Your task to perform on an android device: toggle priority inbox in the gmail app Image 0: 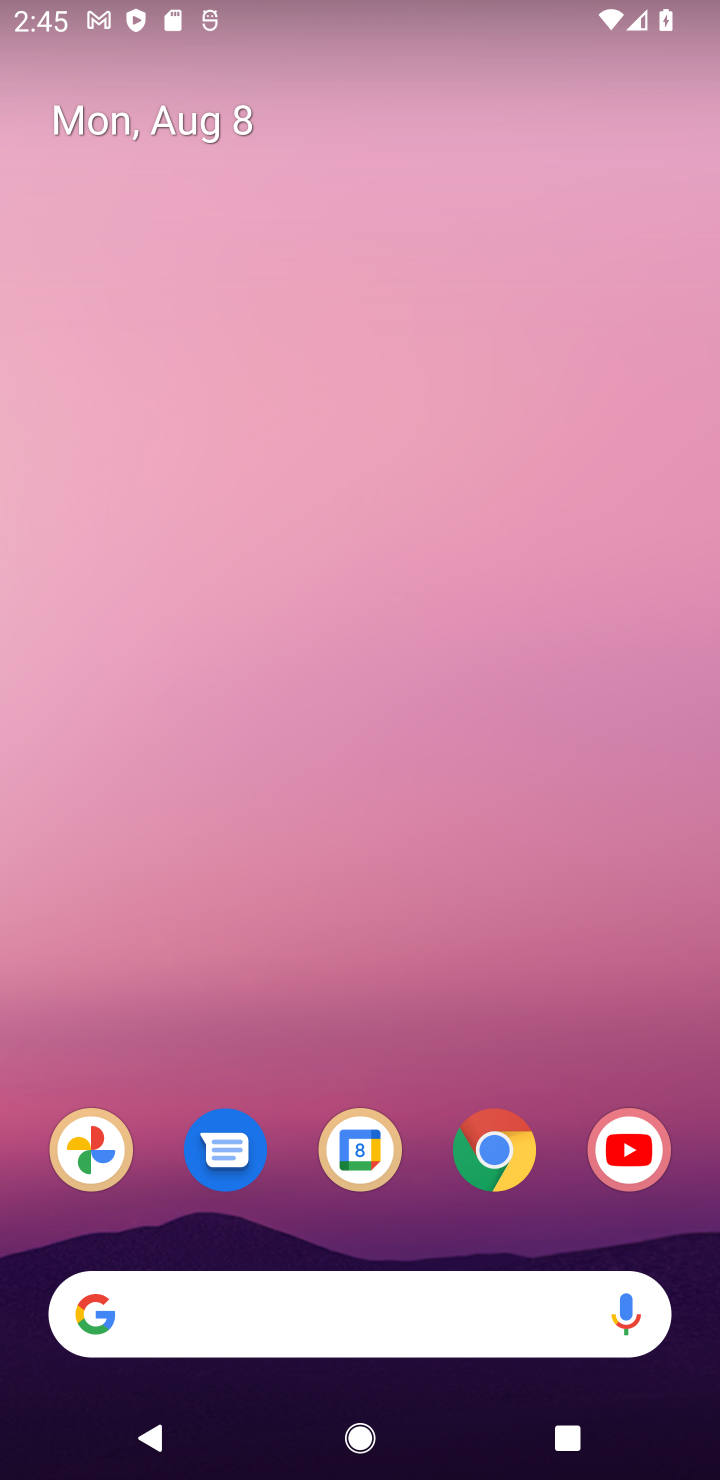
Step 0: drag from (421, 1251) to (458, 327)
Your task to perform on an android device: toggle priority inbox in the gmail app Image 1: 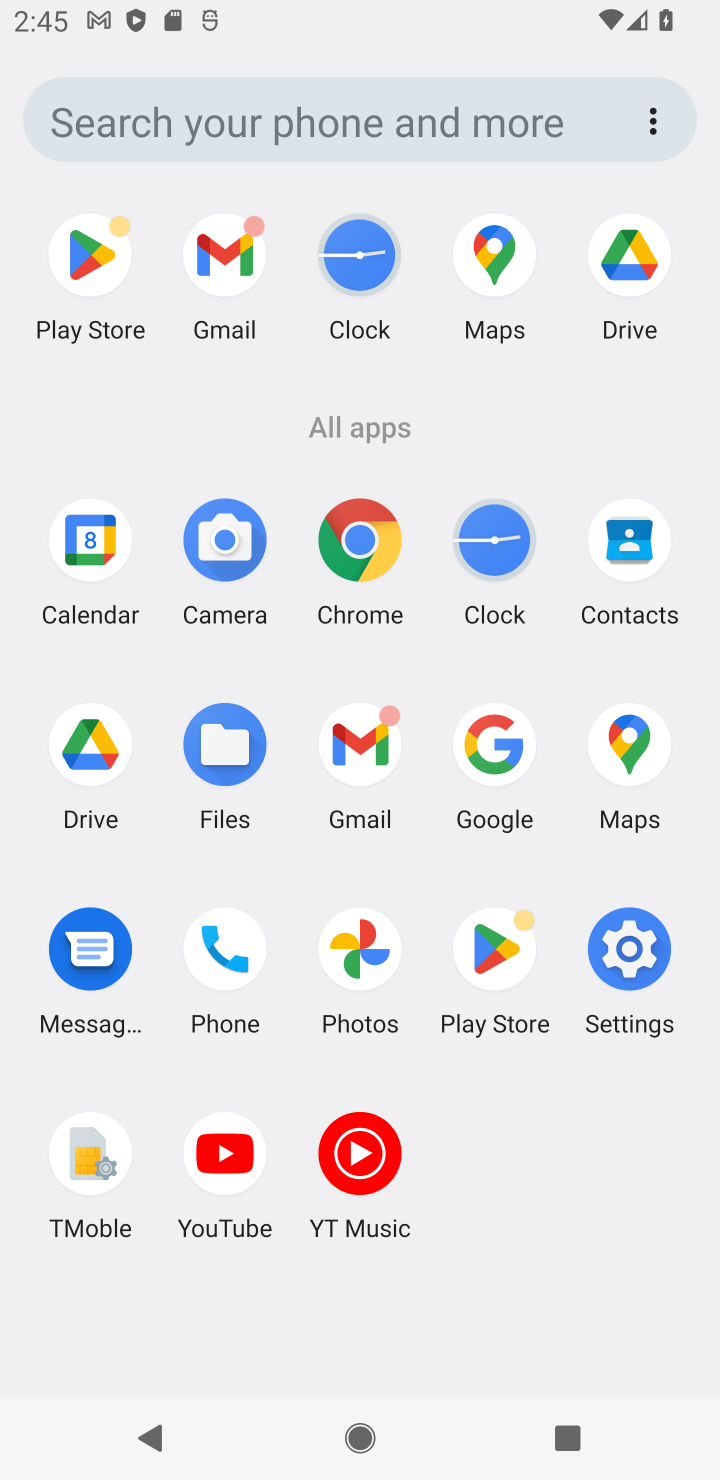
Step 1: click (383, 797)
Your task to perform on an android device: toggle priority inbox in the gmail app Image 2: 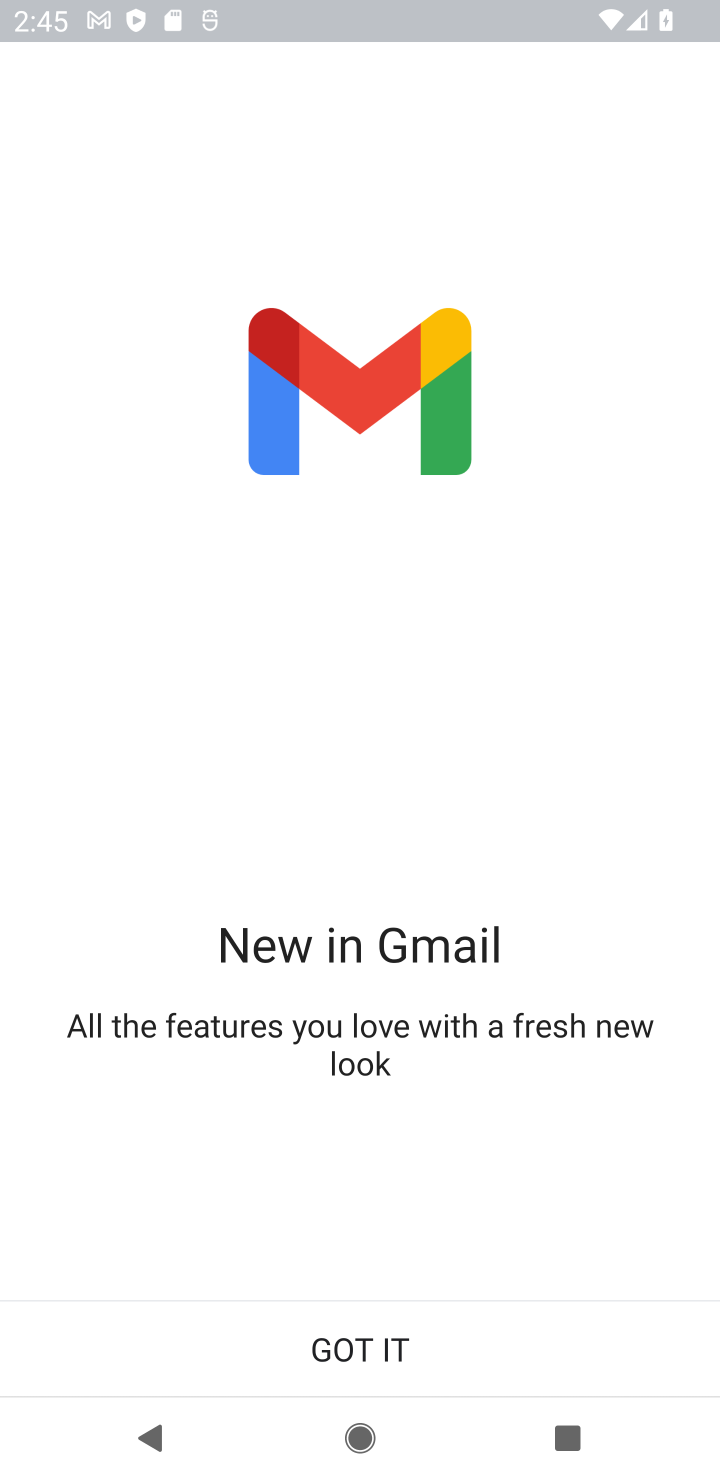
Step 2: click (312, 1338)
Your task to perform on an android device: toggle priority inbox in the gmail app Image 3: 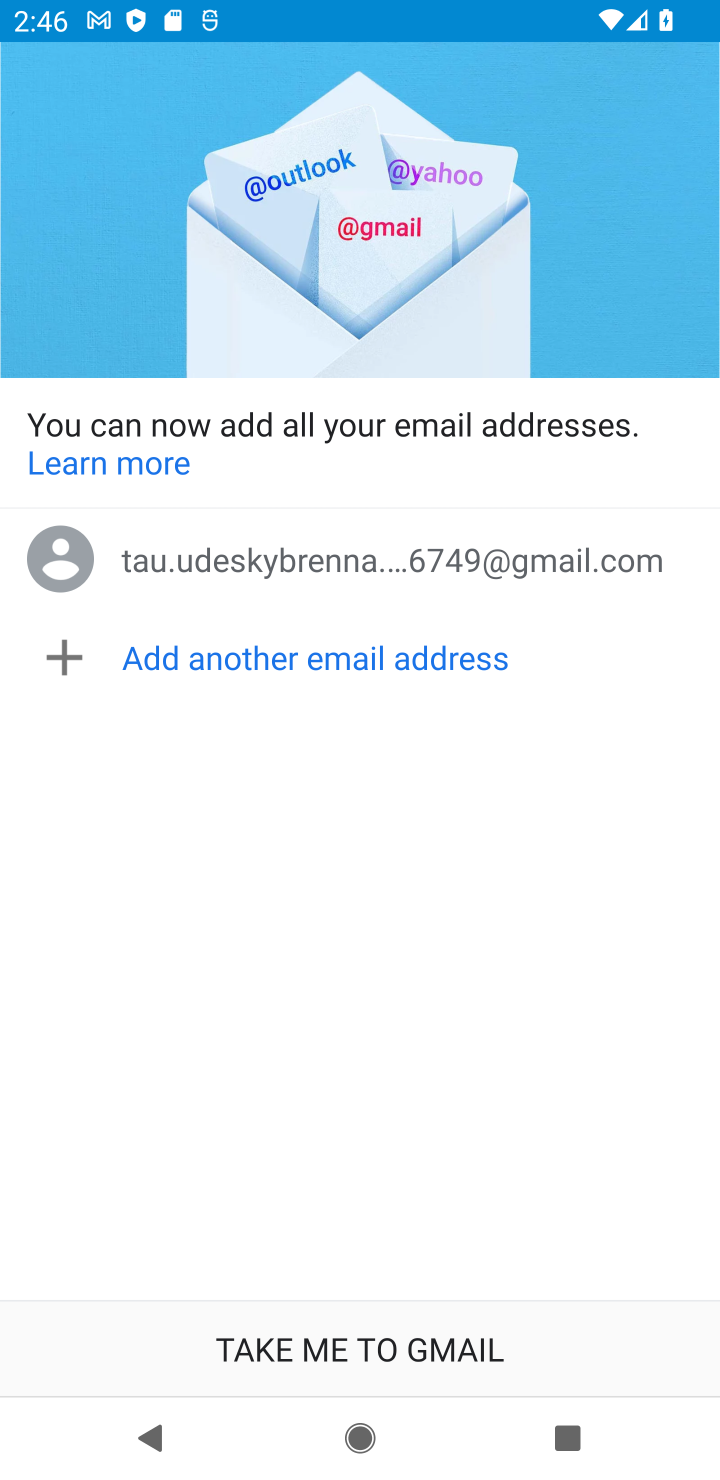
Step 3: task complete